Your task to perform on an android device: Go to network settings Image 0: 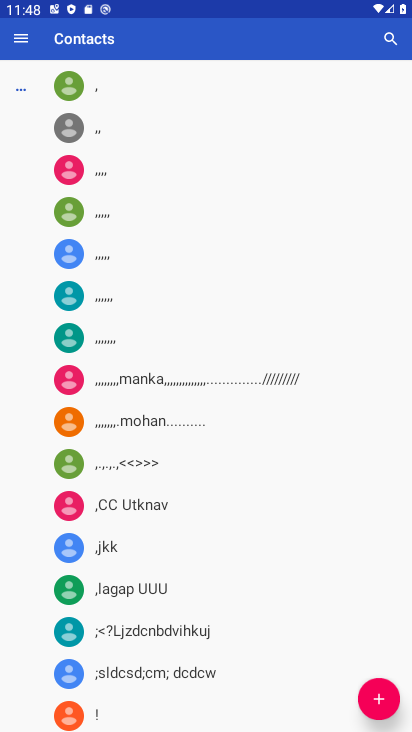
Step 0: press home button
Your task to perform on an android device: Go to network settings Image 1: 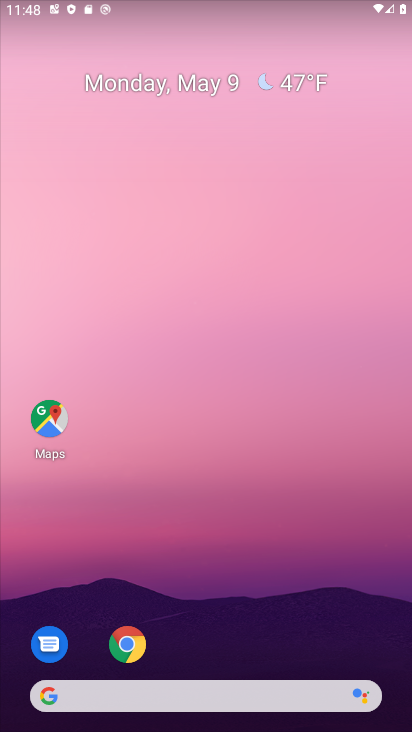
Step 1: drag from (62, 546) to (255, 212)
Your task to perform on an android device: Go to network settings Image 2: 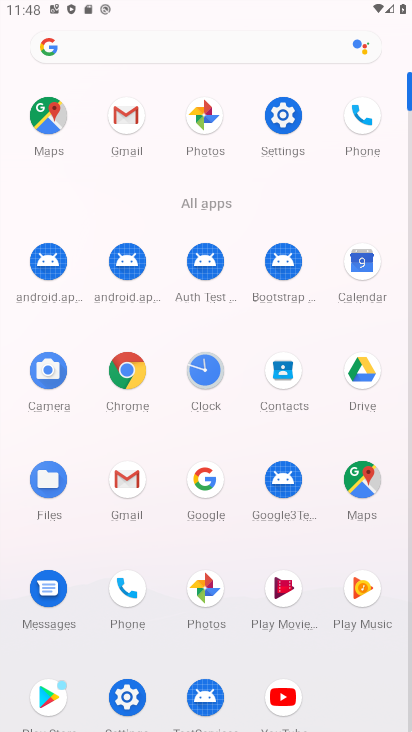
Step 2: click (293, 106)
Your task to perform on an android device: Go to network settings Image 3: 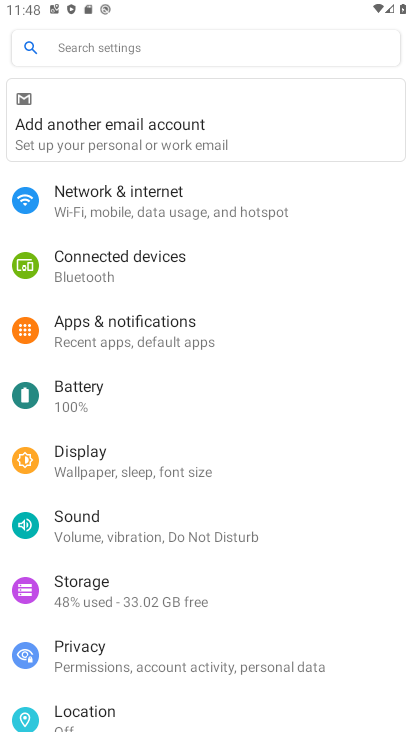
Step 3: click (167, 215)
Your task to perform on an android device: Go to network settings Image 4: 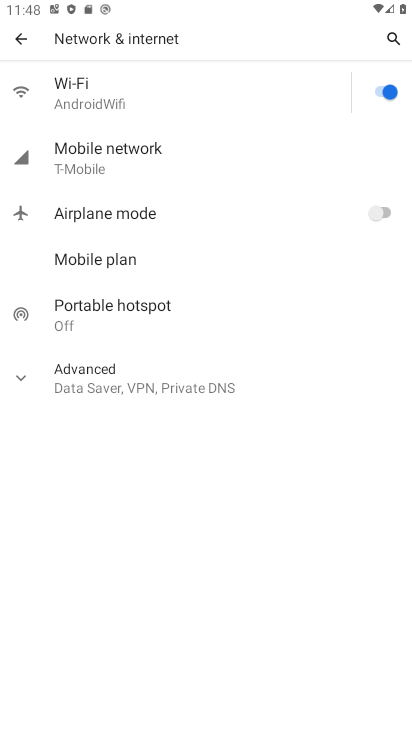
Step 4: task complete